Your task to perform on an android device: allow cookies in the chrome app Image 0: 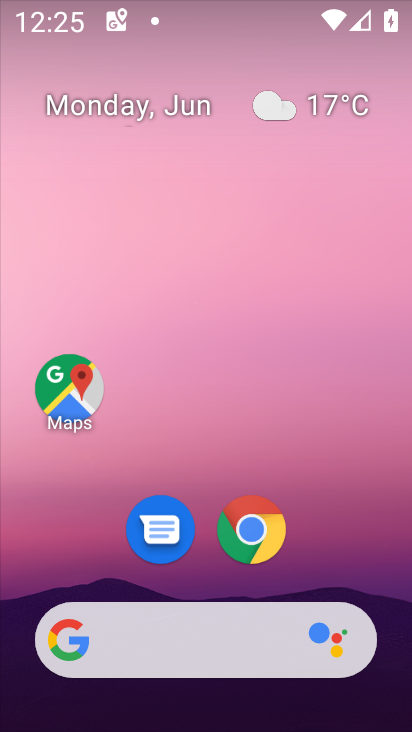
Step 0: drag from (354, 221) to (370, 1)
Your task to perform on an android device: allow cookies in the chrome app Image 1: 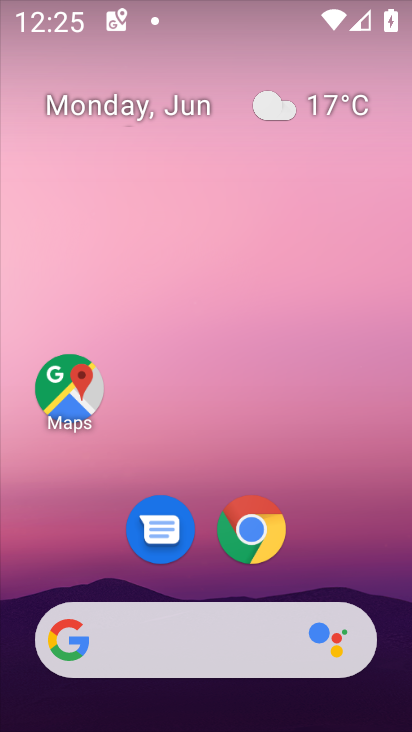
Step 1: drag from (362, 534) to (397, 19)
Your task to perform on an android device: allow cookies in the chrome app Image 2: 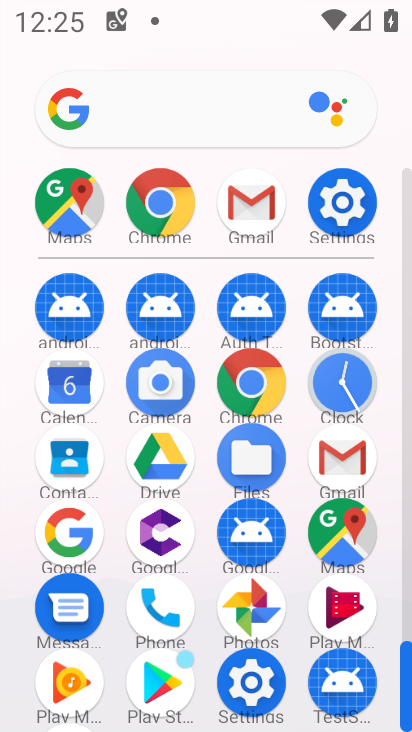
Step 2: click (163, 211)
Your task to perform on an android device: allow cookies in the chrome app Image 3: 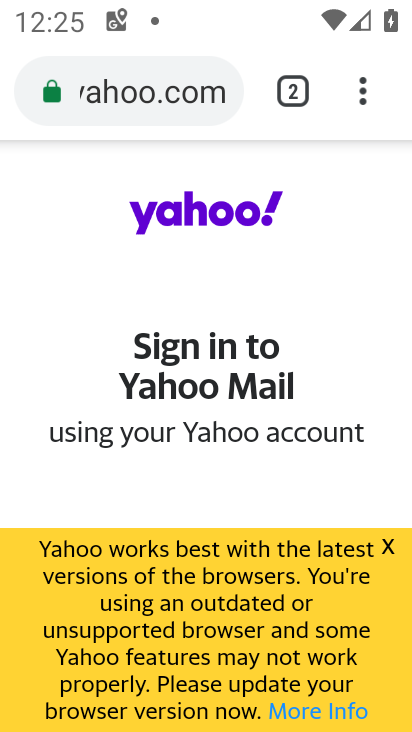
Step 3: drag from (357, 88) to (104, 551)
Your task to perform on an android device: allow cookies in the chrome app Image 4: 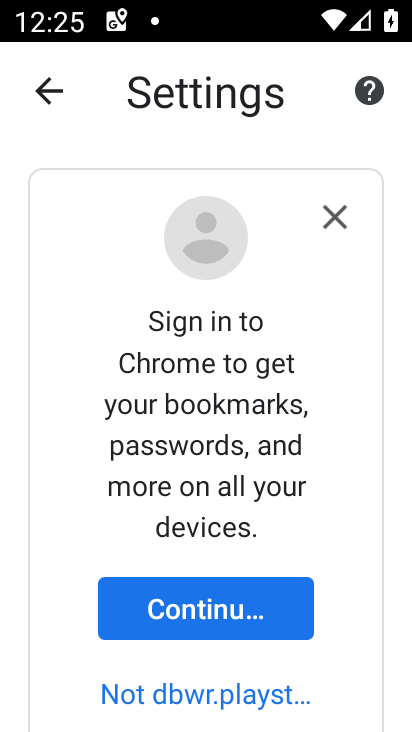
Step 4: drag from (350, 638) to (324, 107)
Your task to perform on an android device: allow cookies in the chrome app Image 5: 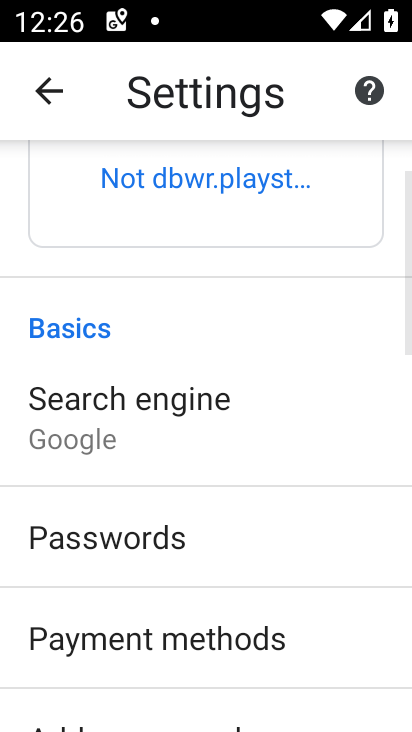
Step 5: drag from (279, 623) to (326, 9)
Your task to perform on an android device: allow cookies in the chrome app Image 6: 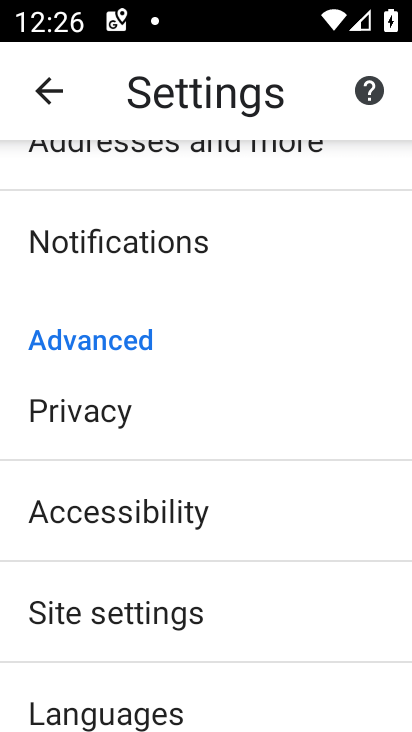
Step 6: drag from (209, 613) to (237, 244)
Your task to perform on an android device: allow cookies in the chrome app Image 7: 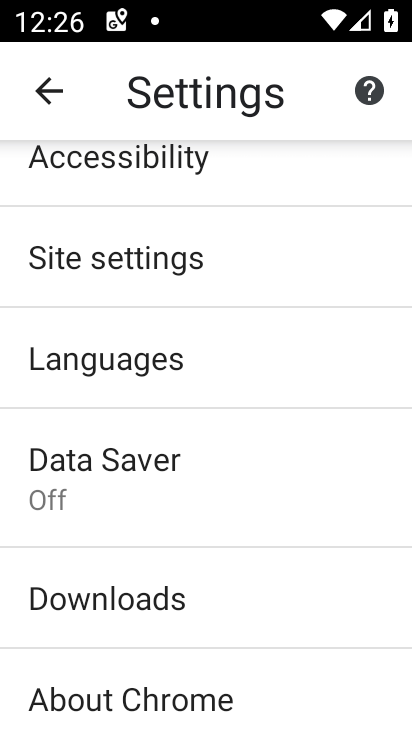
Step 7: click (194, 271)
Your task to perform on an android device: allow cookies in the chrome app Image 8: 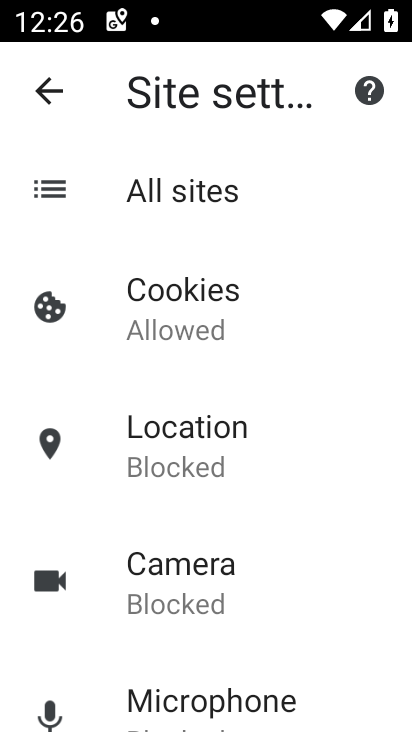
Step 8: drag from (193, 609) to (256, 101)
Your task to perform on an android device: allow cookies in the chrome app Image 9: 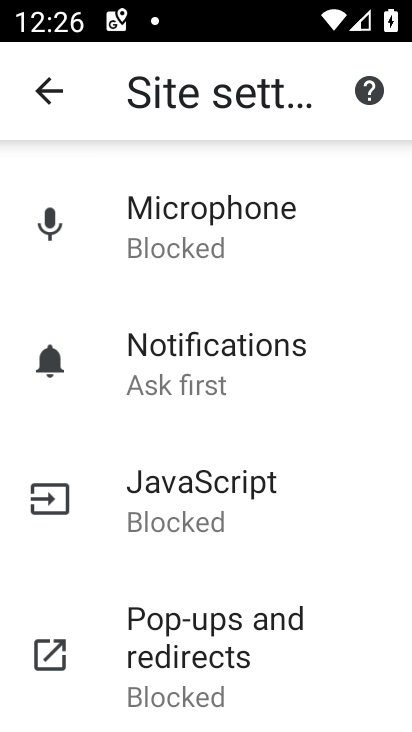
Step 9: drag from (232, 616) to (245, 254)
Your task to perform on an android device: allow cookies in the chrome app Image 10: 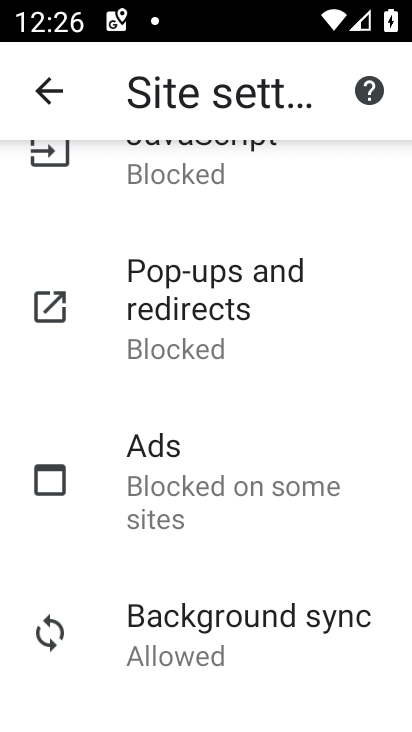
Step 10: drag from (196, 633) to (244, 90)
Your task to perform on an android device: allow cookies in the chrome app Image 11: 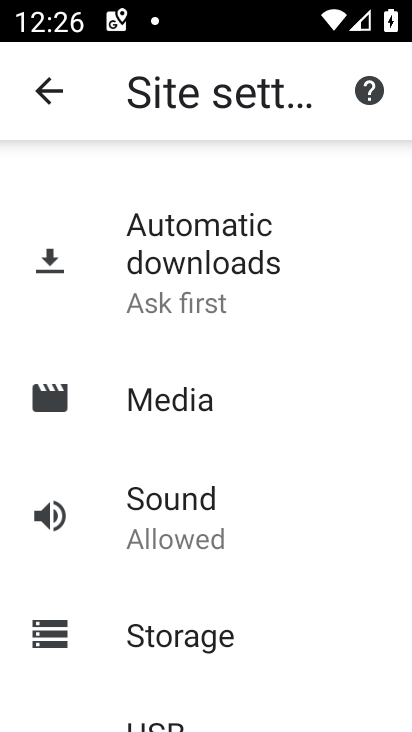
Step 11: drag from (217, 636) to (296, 59)
Your task to perform on an android device: allow cookies in the chrome app Image 12: 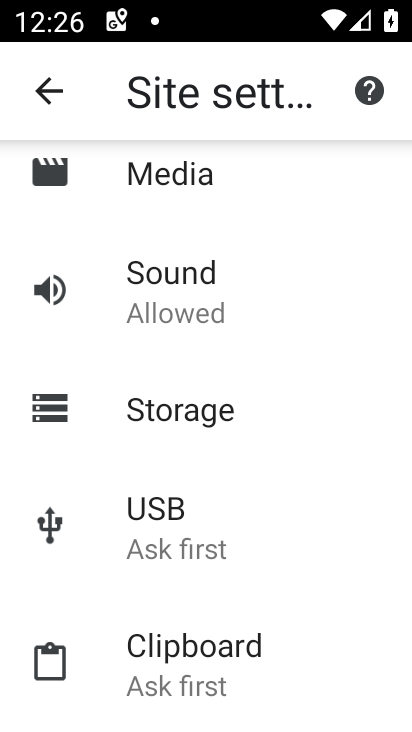
Step 12: drag from (265, 155) to (265, 731)
Your task to perform on an android device: allow cookies in the chrome app Image 13: 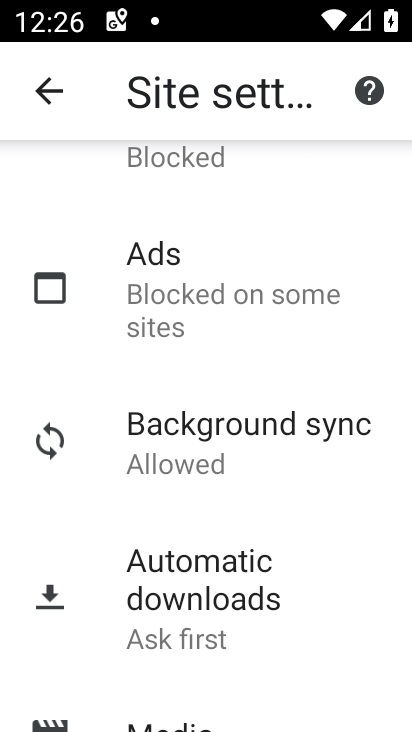
Step 13: drag from (256, 159) to (246, 718)
Your task to perform on an android device: allow cookies in the chrome app Image 14: 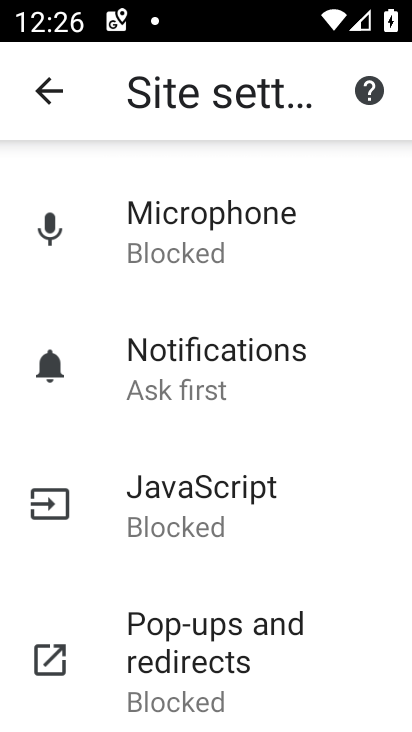
Step 14: drag from (231, 192) to (247, 728)
Your task to perform on an android device: allow cookies in the chrome app Image 15: 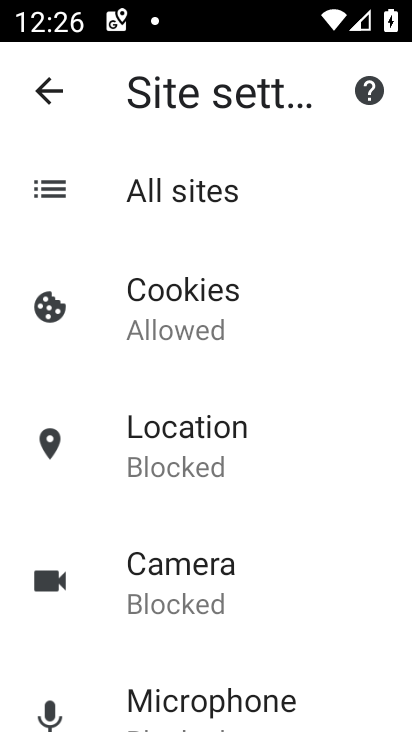
Step 15: drag from (222, 468) to (248, 715)
Your task to perform on an android device: allow cookies in the chrome app Image 16: 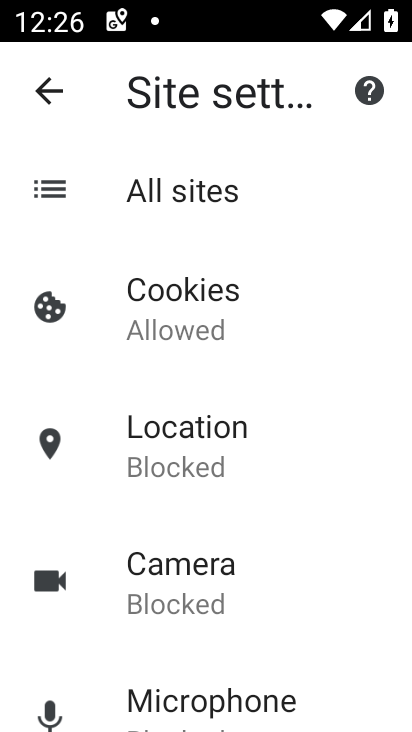
Step 16: click (201, 315)
Your task to perform on an android device: allow cookies in the chrome app Image 17: 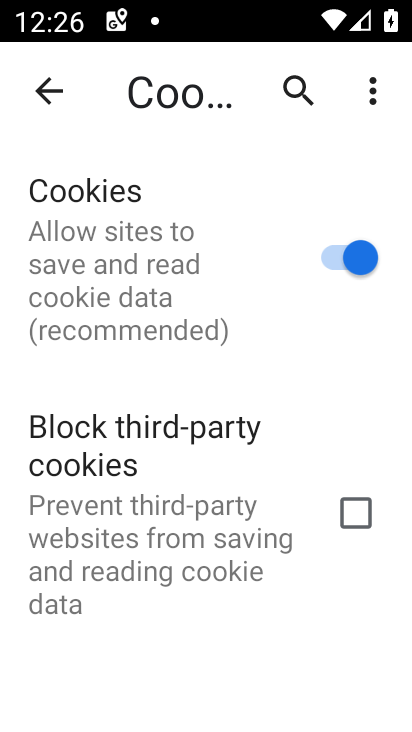
Step 17: task complete